Your task to perform on an android device: Search for pizza restaurants on Maps Image 0: 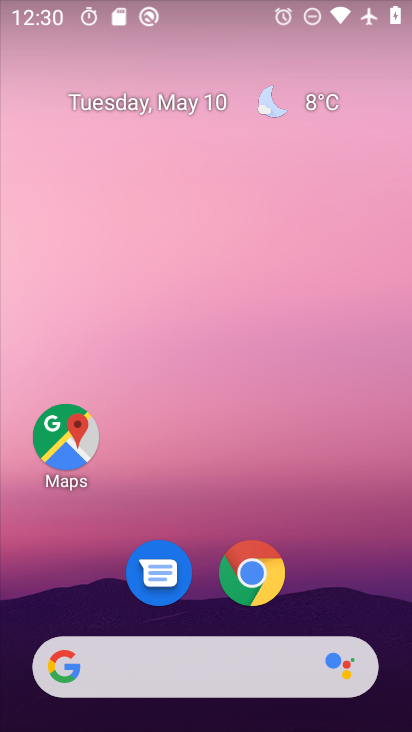
Step 0: drag from (260, 584) to (308, 284)
Your task to perform on an android device: Search for pizza restaurants on Maps Image 1: 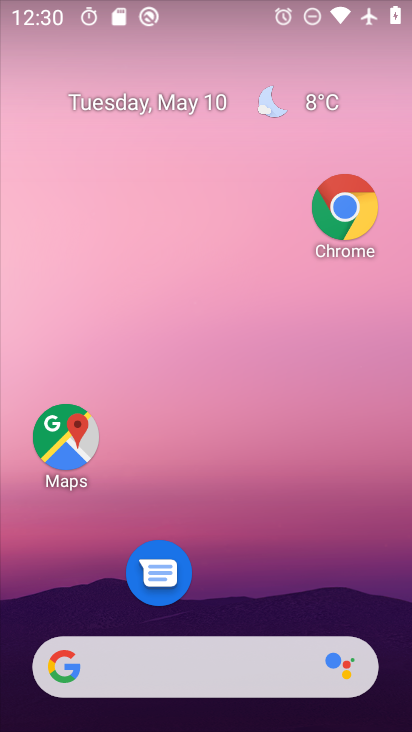
Step 1: drag from (229, 544) to (239, 119)
Your task to perform on an android device: Search for pizza restaurants on Maps Image 2: 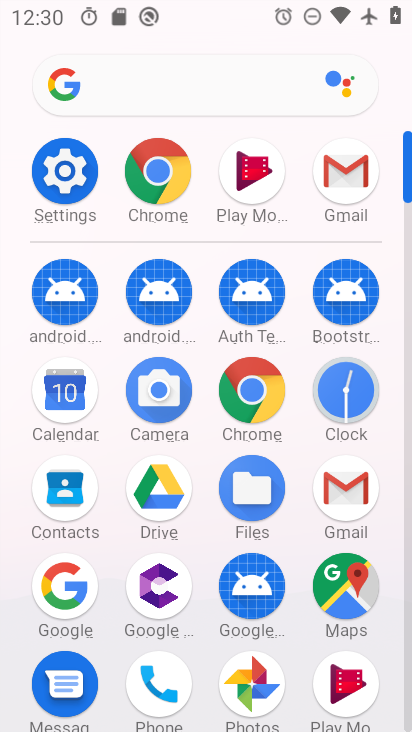
Step 2: click (336, 593)
Your task to perform on an android device: Search for pizza restaurants on Maps Image 3: 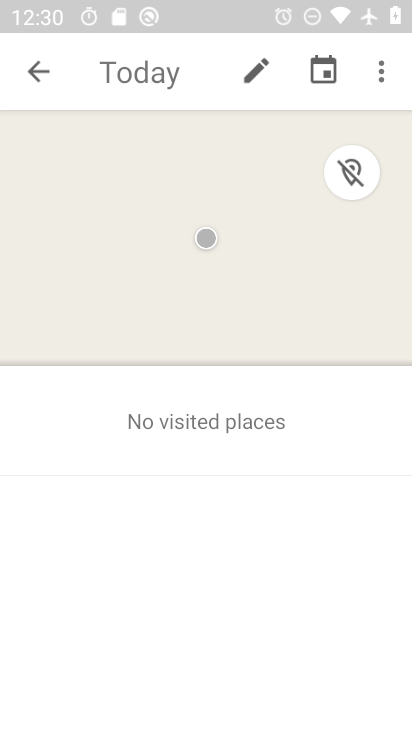
Step 3: click (40, 67)
Your task to perform on an android device: Search for pizza restaurants on Maps Image 4: 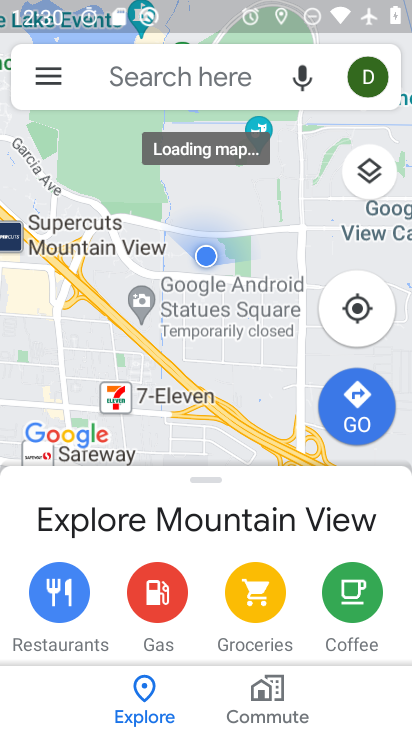
Step 4: click (158, 77)
Your task to perform on an android device: Search for pizza restaurants on Maps Image 5: 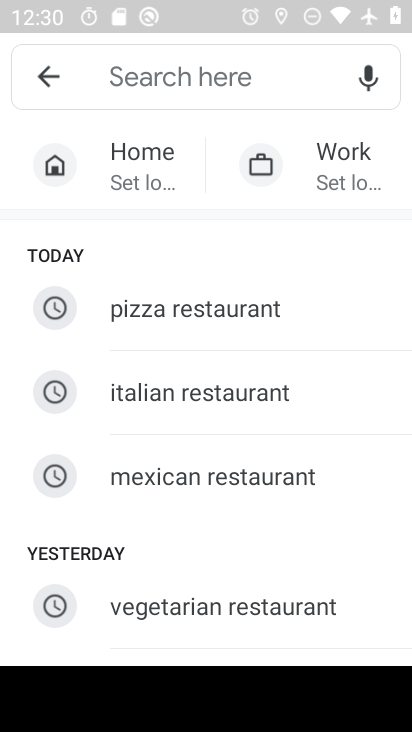
Step 5: type "pizza restaurants"
Your task to perform on an android device: Search for pizza restaurants on Maps Image 6: 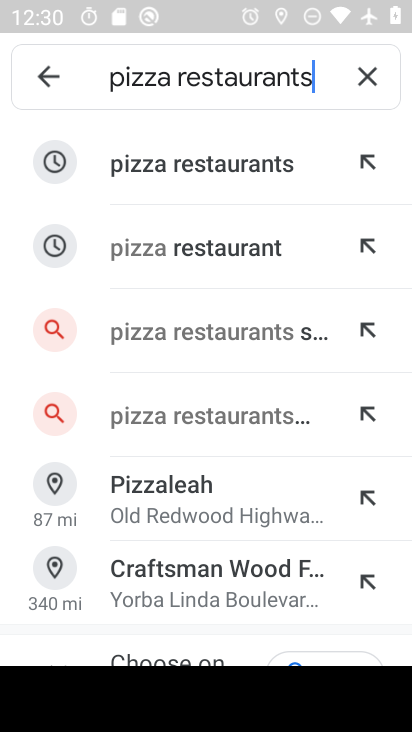
Step 6: click (166, 152)
Your task to perform on an android device: Search for pizza restaurants on Maps Image 7: 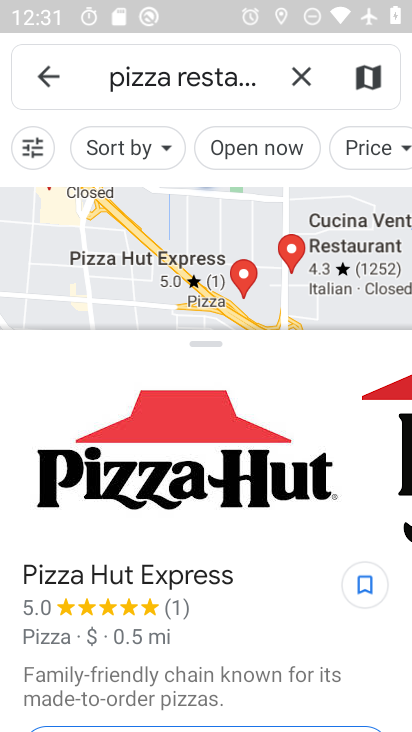
Step 7: task complete